Your task to perform on an android device: turn off smart reply in the gmail app Image 0: 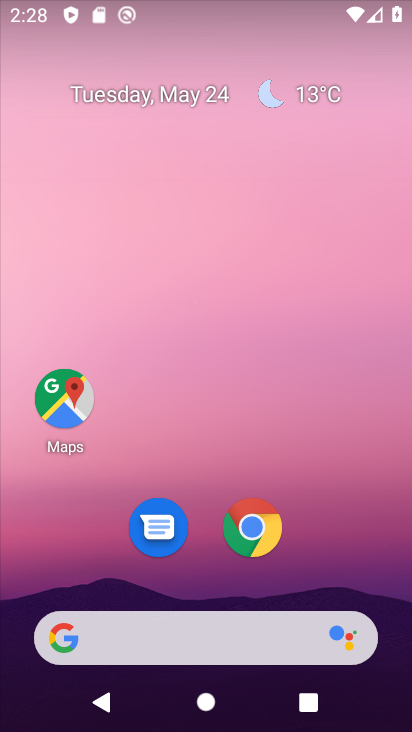
Step 0: drag from (311, 562) to (302, 211)
Your task to perform on an android device: turn off smart reply in the gmail app Image 1: 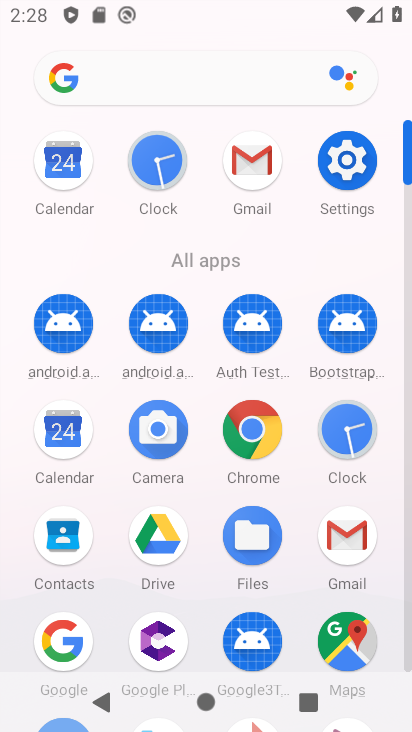
Step 1: click (338, 536)
Your task to perform on an android device: turn off smart reply in the gmail app Image 2: 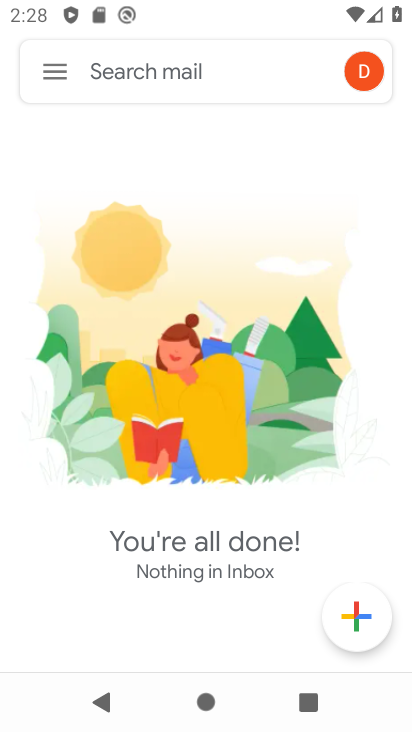
Step 2: click (55, 77)
Your task to perform on an android device: turn off smart reply in the gmail app Image 3: 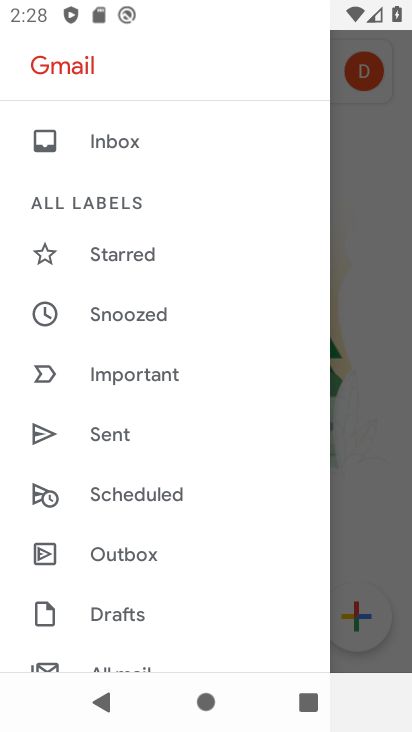
Step 3: drag from (136, 562) to (193, 248)
Your task to perform on an android device: turn off smart reply in the gmail app Image 4: 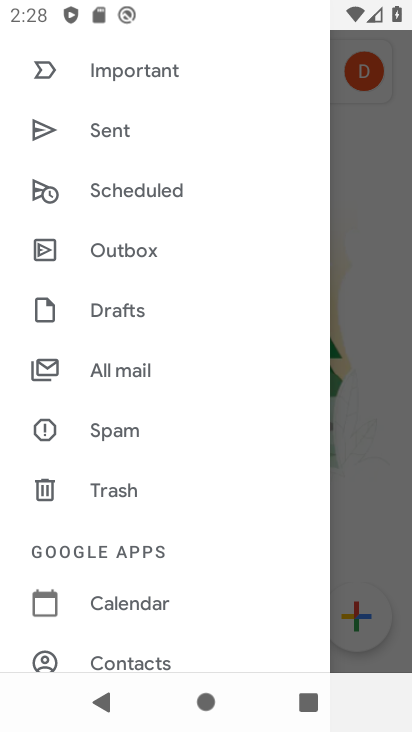
Step 4: drag from (128, 617) to (137, 332)
Your task to perform on an android device: turn off smart reply in the gmail app Image 5: 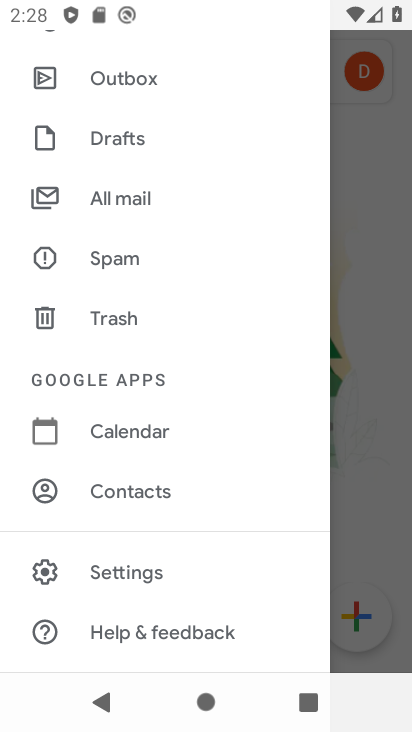
Step 5: click (182, 564)
Your task to perform on an android device: turn off smart reply in the gmail app Image 6: 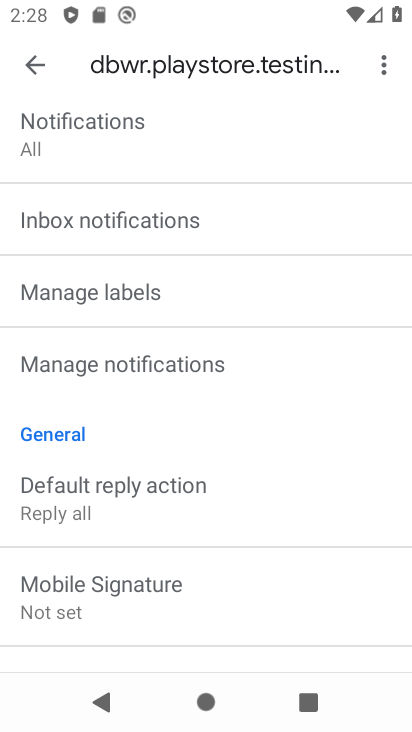
Step 6: drag from (161, 561) to (182, 304)
Your task to perform on an android device: turn off smart reply in the gmail app Image 7: 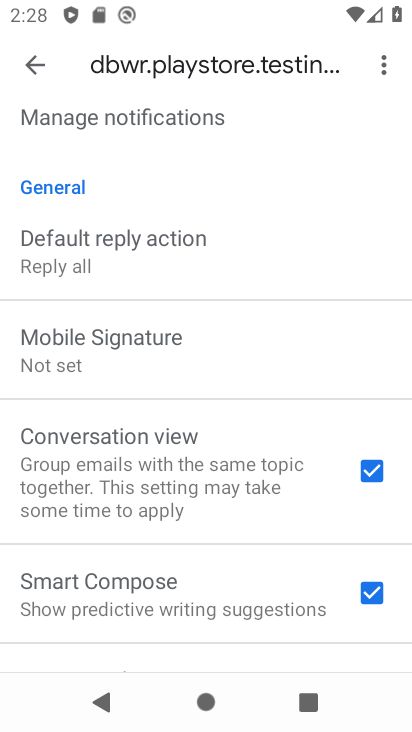
Step 7: drag from (169, 594) to (182, 332)
Your task to perform on an android device: turn off smart reply in the gmail app Image 8: 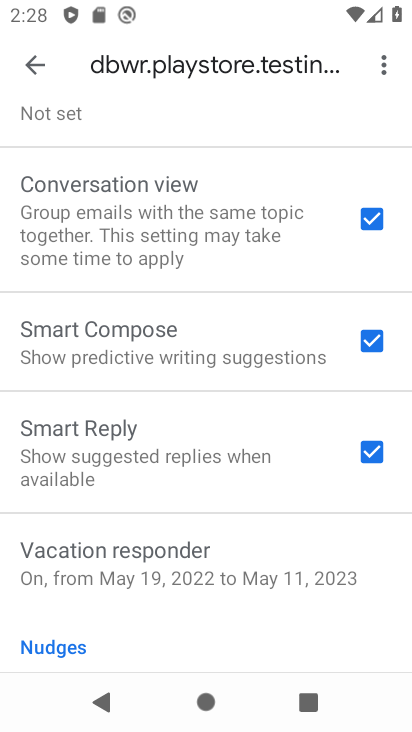
Step 8: click (360, 450)
Your task to perform on an android device: turn off smart reply in the gmail app Image 9: 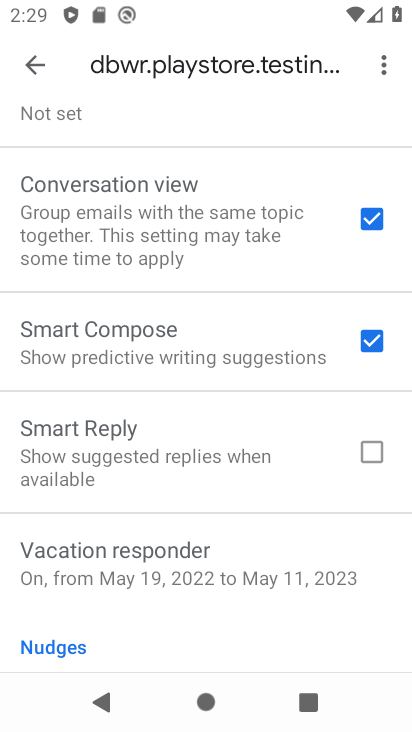
Step 9: task complete